Your task to perform on an android device: Go to internet settings Image 0: 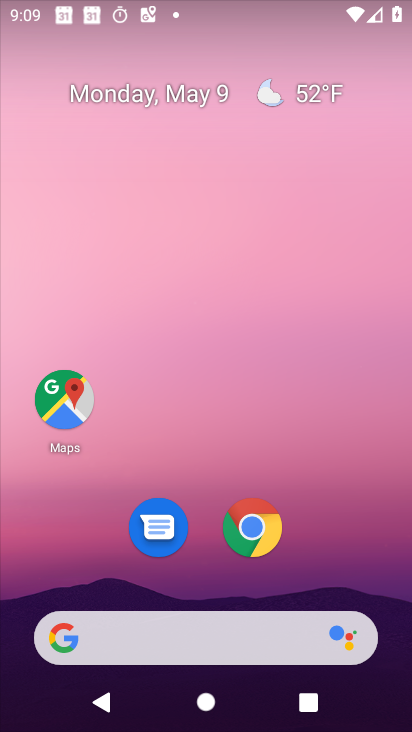
Step 0: drag from (380, 546) to (397, 124)
Your task to perform on an android device: Go to internet settings Image 1: 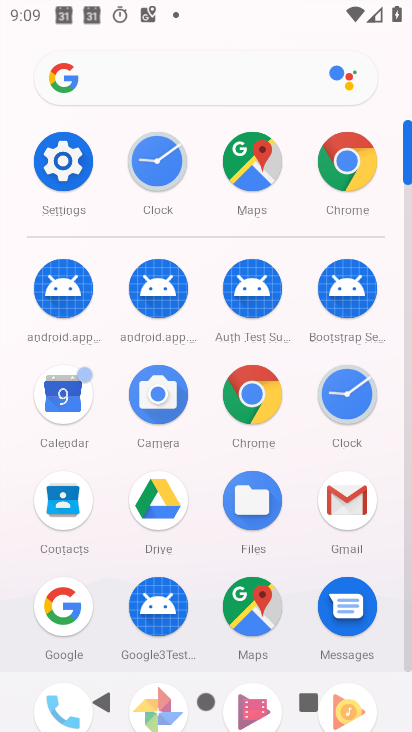
Step 1: click (57, 150)
Your task to perform on an android device: Go to internet settings Image 2: 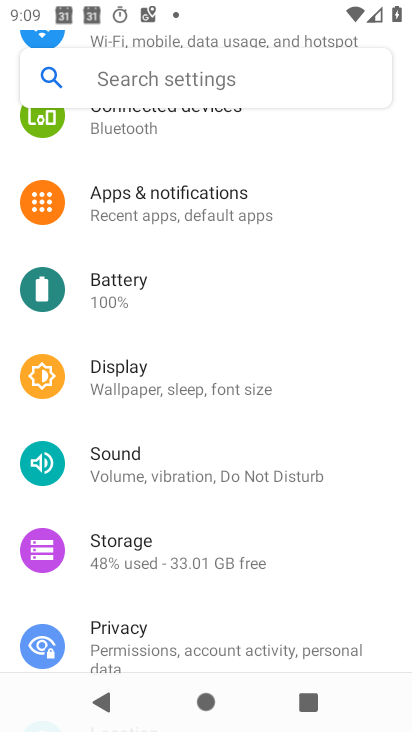
Step 2: drag from (212, 164) to (201, 456)
Your task to perform on an android device: Go to internet settings Image 3: 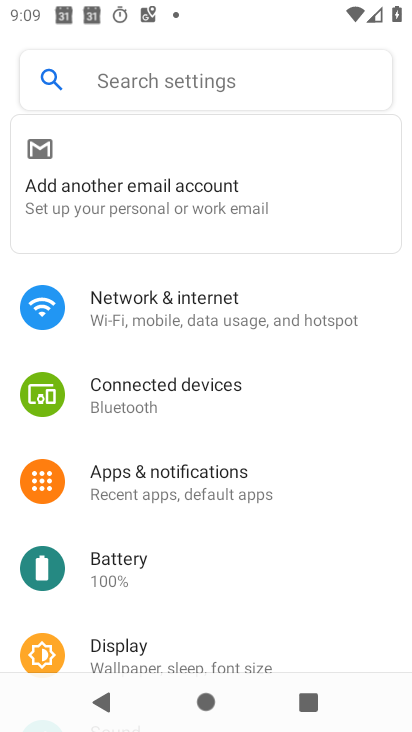
Step 3: click (198, 323)
Your task to perform on an android device: Go to internet settings Image 4: 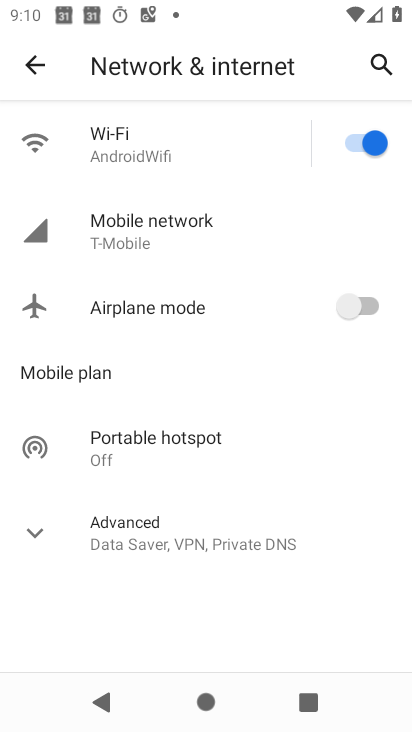
Step 4: task complete